Your task to perform on an android device: Clear the cart on bestbuy.com. Add amazon basics triple a to the cart on bestbuy.com Image 0: 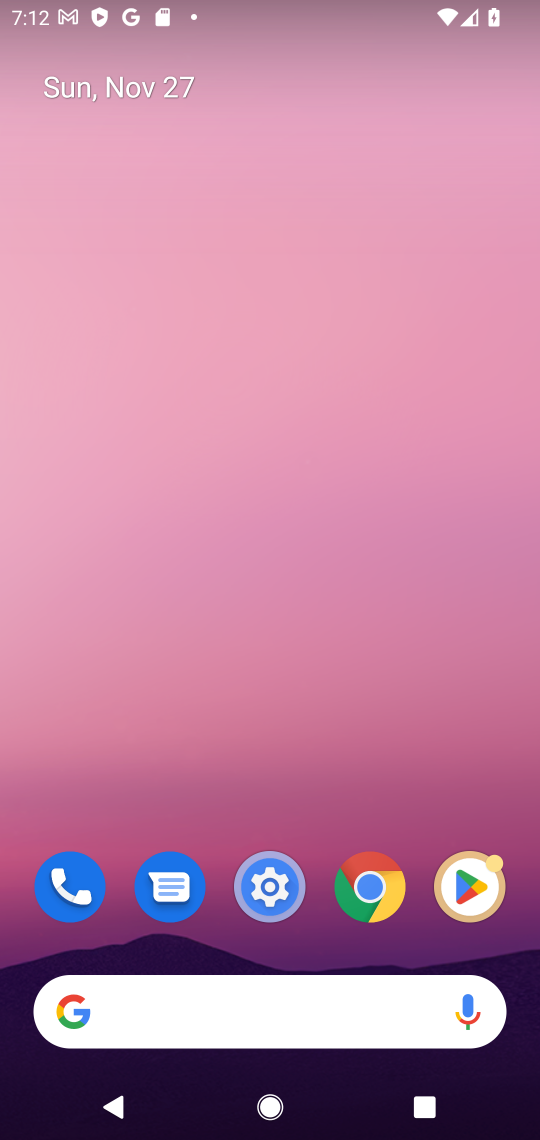
Step 0: press home button
Your task to perform on an android device: Clear the cart on bestbuy.com. Add amazon basics triple a to the cart on bestbuy.com Image 1: 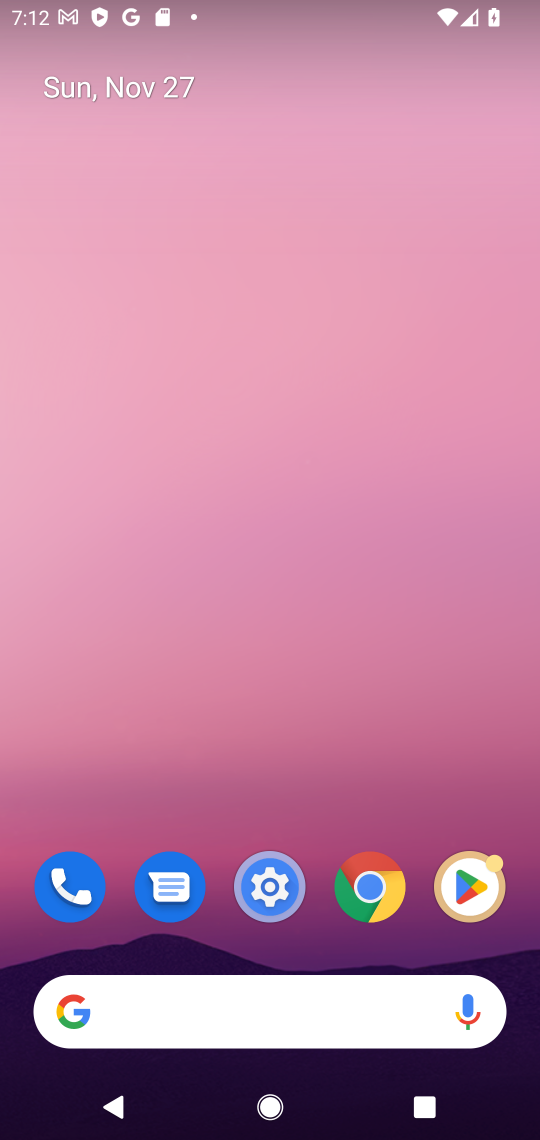
Step 1: click (158, 1042)
Your task to perform on an android device: Clear the cart on bestbuy.com. Add amazon basics triple a to the cart on bestbuy.com Image 2: 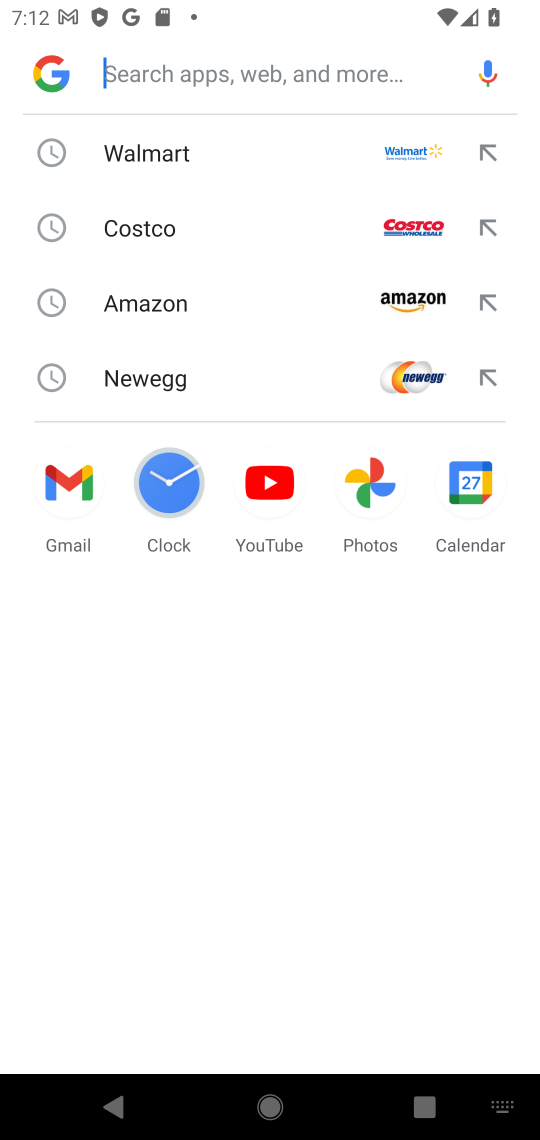
Step 2: type "bestbuy"
Your task to perform on an android device: Clear the cart on bestbuy.com. Add amazon basics triple a to the cart on bestbuy.com Image 3: 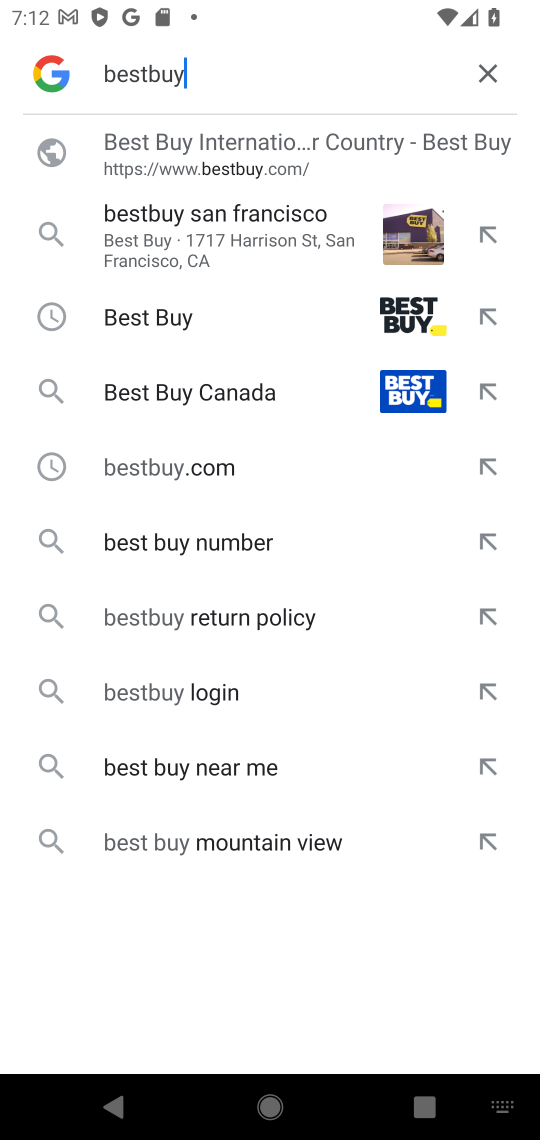
Step 3: click (187, 179)
Your task to perform on an android device: Clear the cart on bestbuy.com. Add amazon basics triple a to the cart on bestbuy.com Image 4: 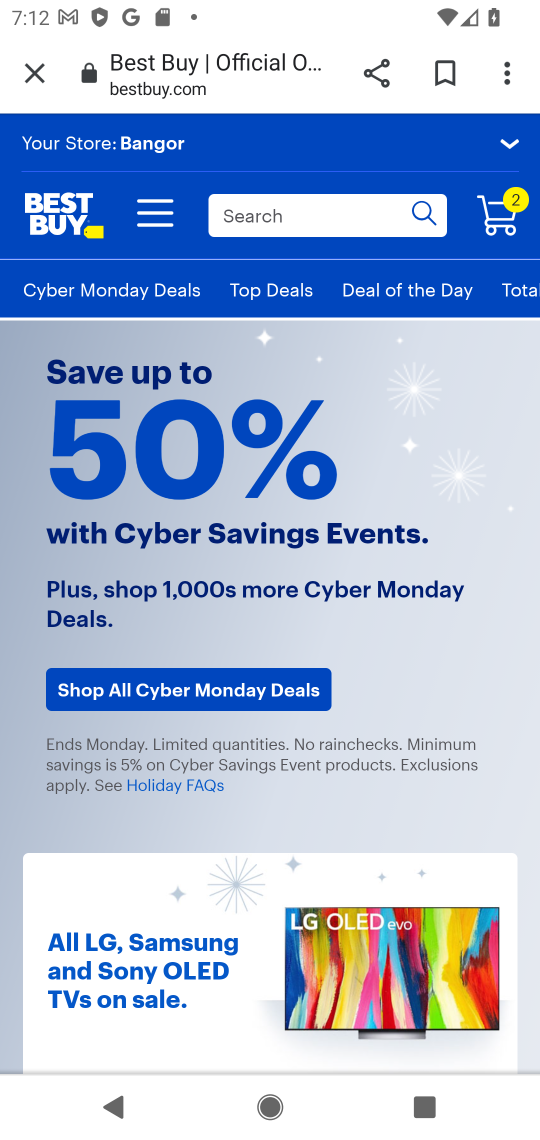
Step 4: press home button
Your task to perform on an android device: Clear the cart on bestbuy.com. Add amazon basics triple a to the cart on bestbuy.com Image 5: 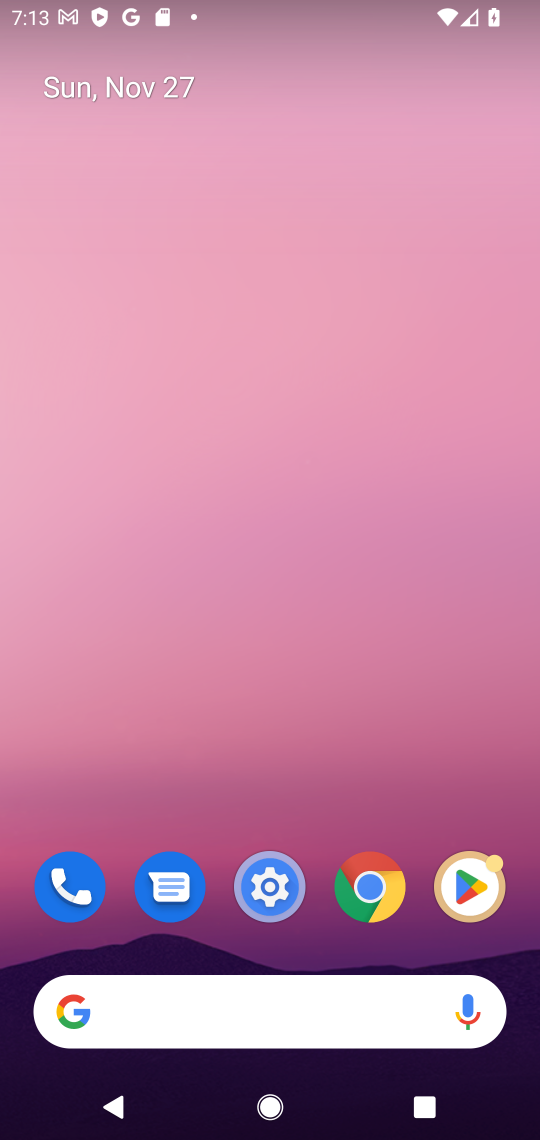
Step 5: click (238, 1031)
Your task to perform on an android device: Clear the cart on bestbuy.com. Add amazon basics triple a to the cart on bestbuy.com Image 6: 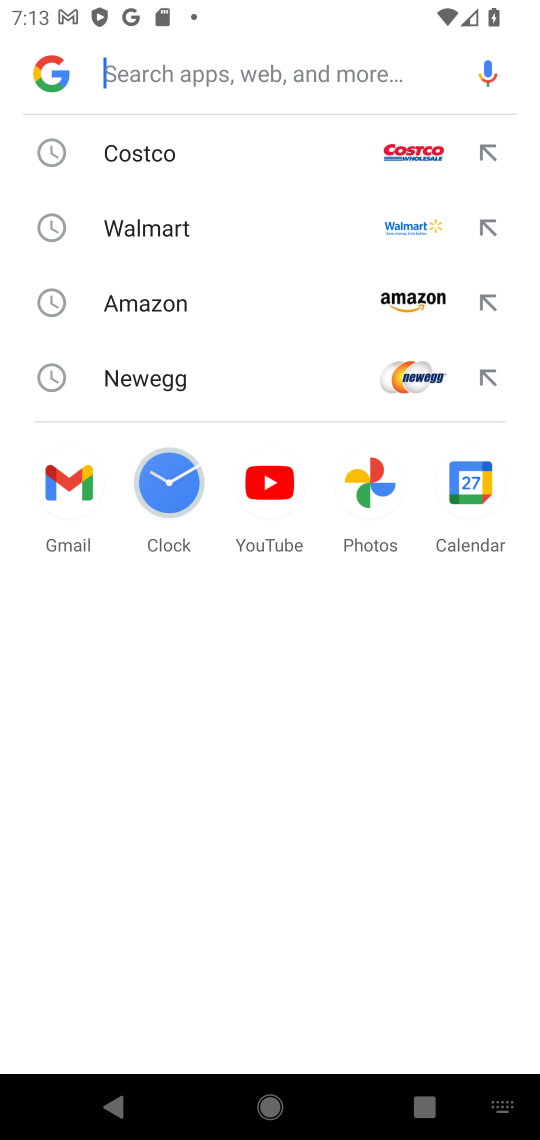
Step 6: type "bestbuy"
Your task to perform on an android device: Clear the cart on bestbuy.com. Add amazon basics triple a to the cart on bestbuy.com Image 7: 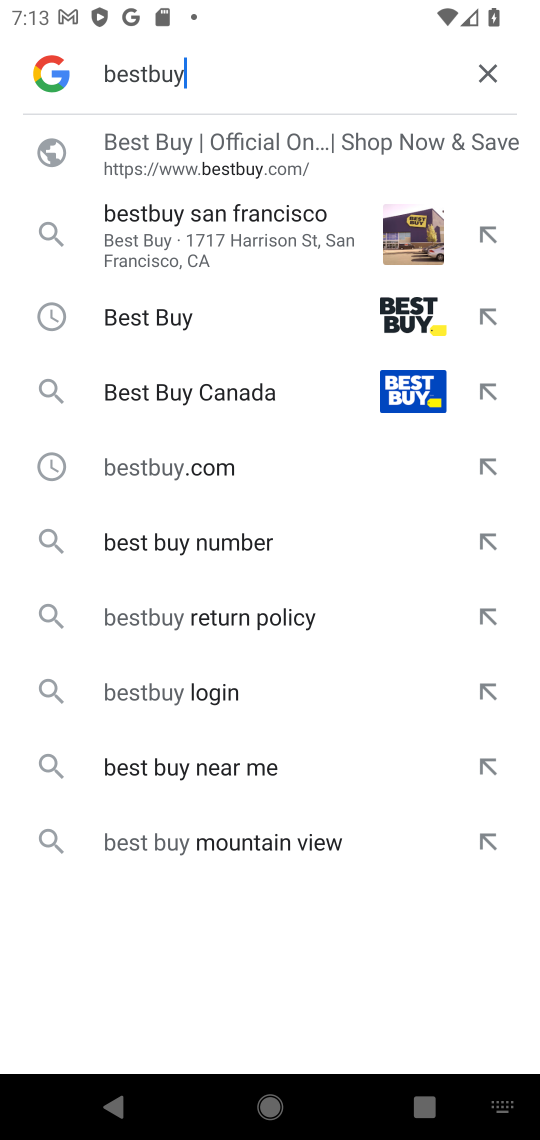
Step 7: click (263, 134)
Your task to perform on an android device: Clear the cart on bestbuy.com. Add amazon basics triple a to the cart on bestbuy.com Image 8: 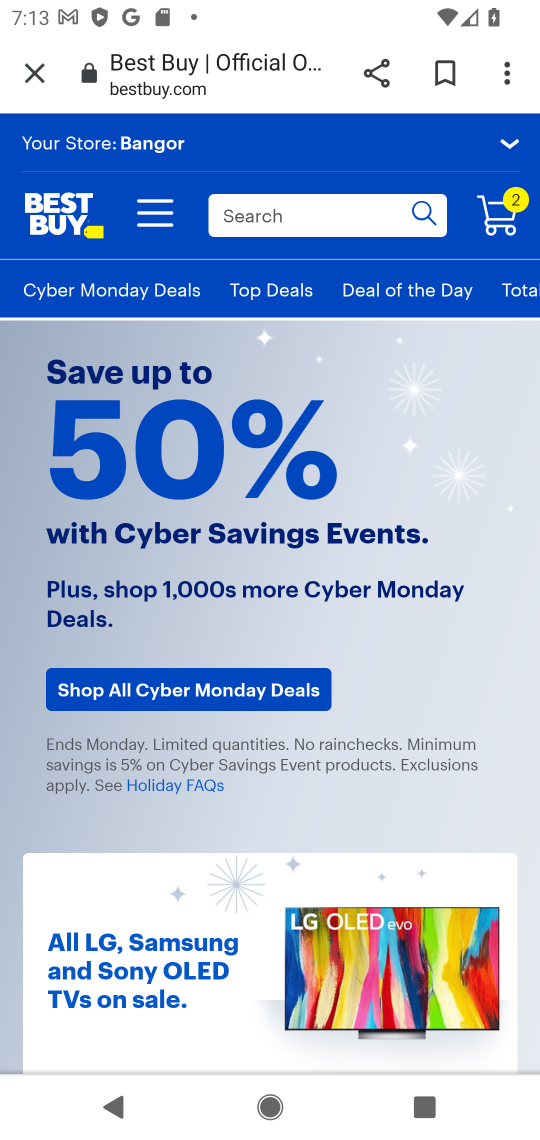
Step 8: click (321, 238)
Your task to perform on an android device: Clear the cart on bestbuy.com. Add amazon basics triple a to the cart on bestbuy.com Image 9: 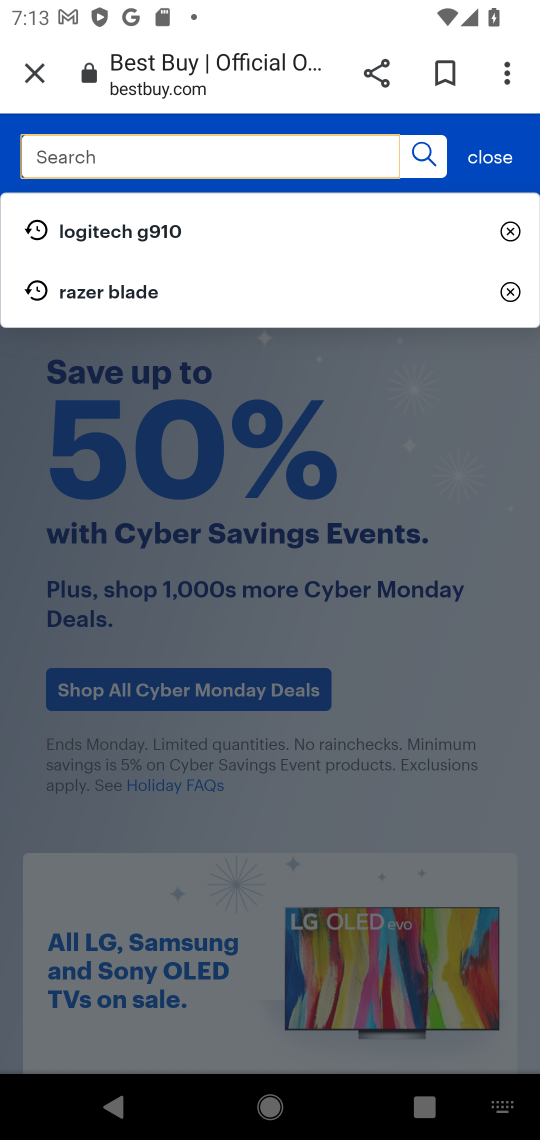
Step 9: type "amazon basic triple a"
Your task to perform on an android device: Clear the cart on bestbuy.com. Add amazon basics triple a to the cart on bestbuy.com Image 10: 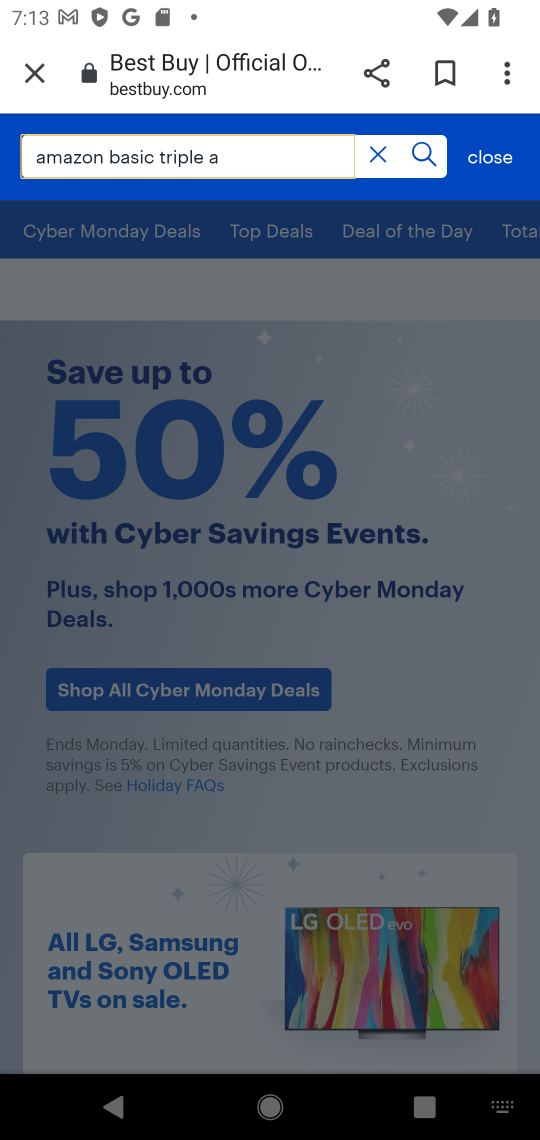
Step 10: task complete